Your task to perform on an android device: Go to Google Image 0: 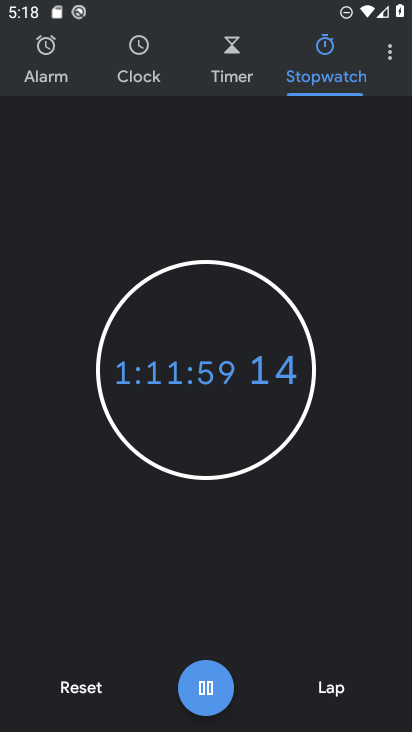
Step 0: press home button
Your task to perform on an android device: Go to Google Image 1: 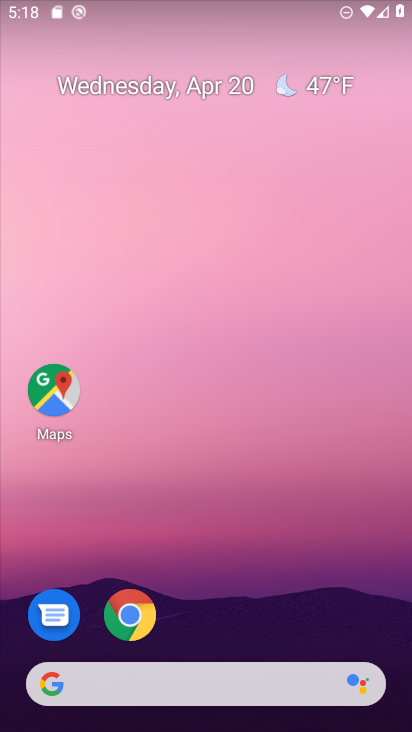
Step 1: drag from (241, 316) to (240, 80)
Your task to perform on an android device: Go to Google Image 2: 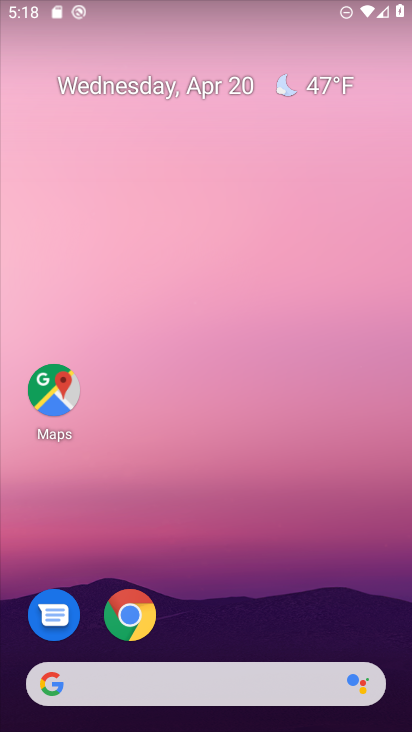
Step 2: drag from (246, 243) to (246, 80)
Your task to perform on an android device: Go to Google Image 3: 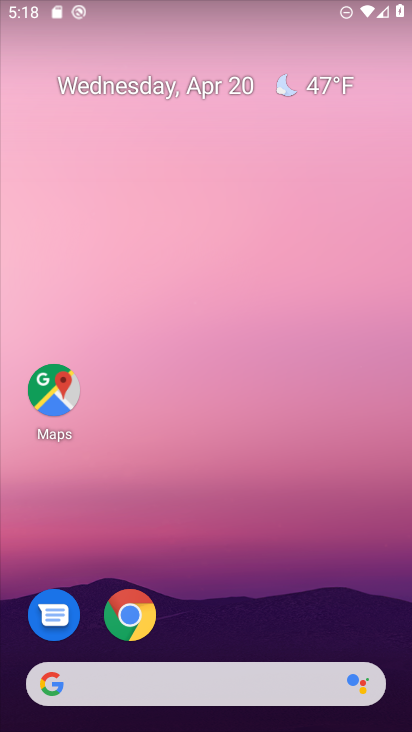
Step 3: drag from (291, 606) to (279, 39)
Your task to perform on an android device: Go to Google Image 4: 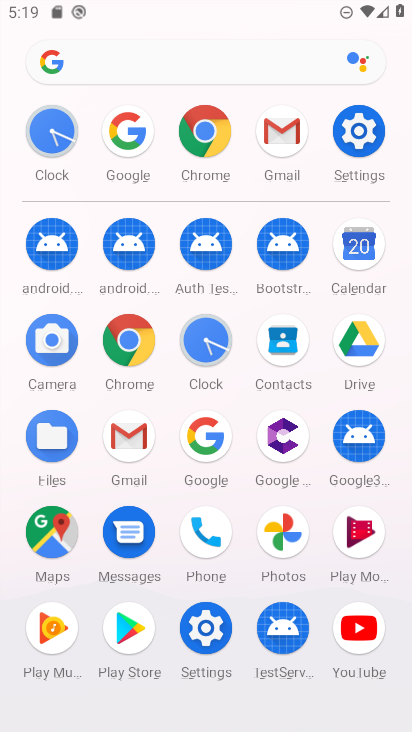
Step 4: click (129, 133)
Your task to perform on an android device: Go to Google Image 5: 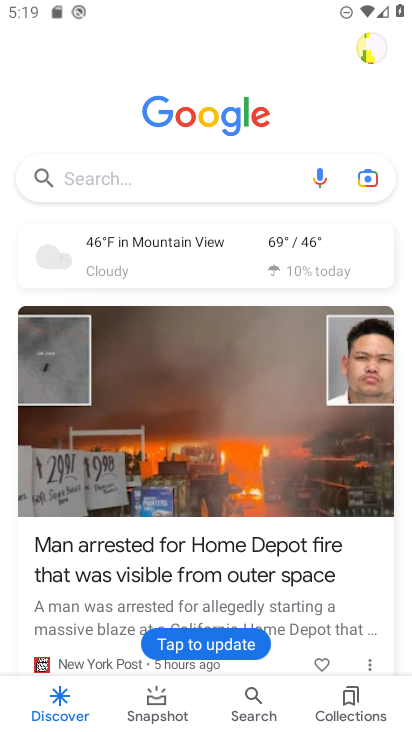
Step 5: task complete